Your task to perform on an android device: clear all cookies in the chrome app Image 0: 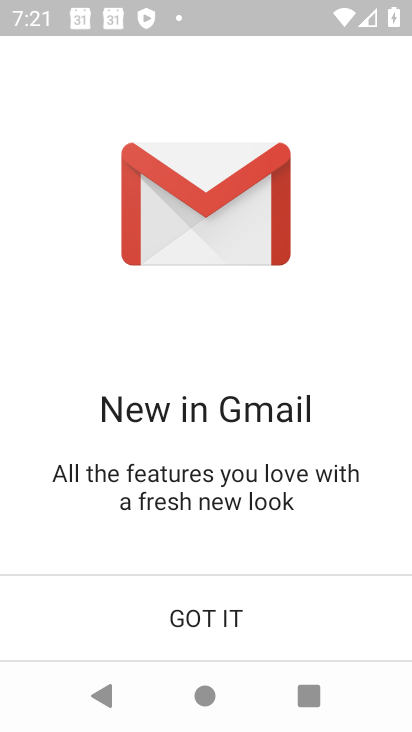
Step 0: press home button
Your task to perform on an android device: clear all cookies in the chrome app Image 1: 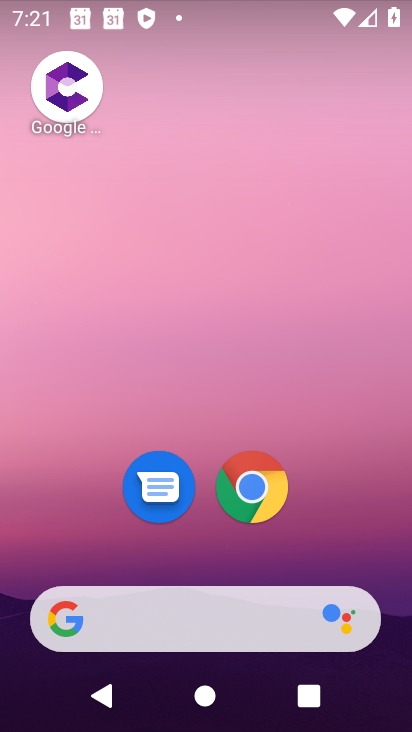
Step 1: drag from (367, 559) to (315, 37)
Your task to perform on an android device: clear all cookies in the chrome app Image 2: 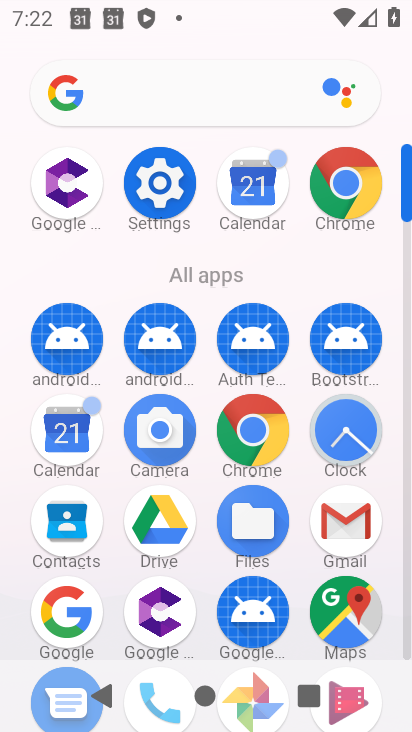
Step 2: click (262, 426)
Your task to perform on an android device: clear all cookies in the chrome app Image 3: 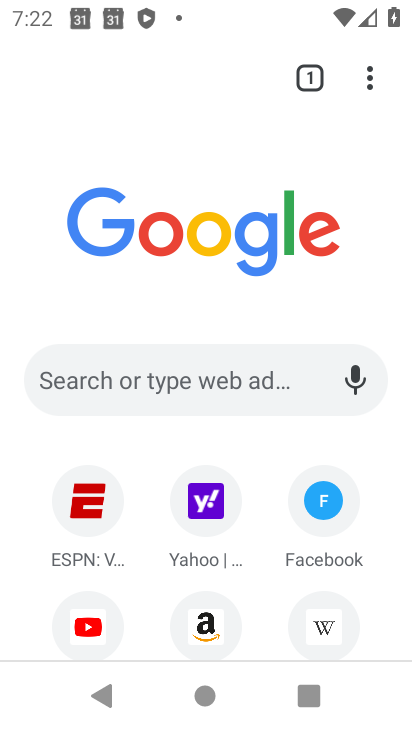
Step 3: click (367, 74)
Your task to perform on an android device: clear all cookies in the chrome app Image 4: 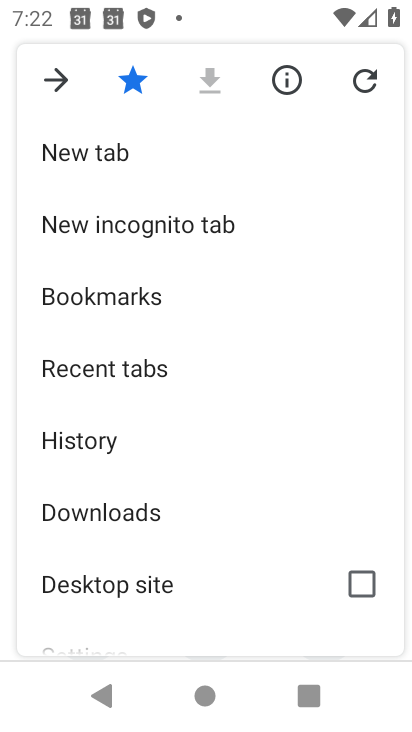
Step 4: click (189, 446)
Your task to perform on an android device: clear all cookies in the chrome app Image 5: 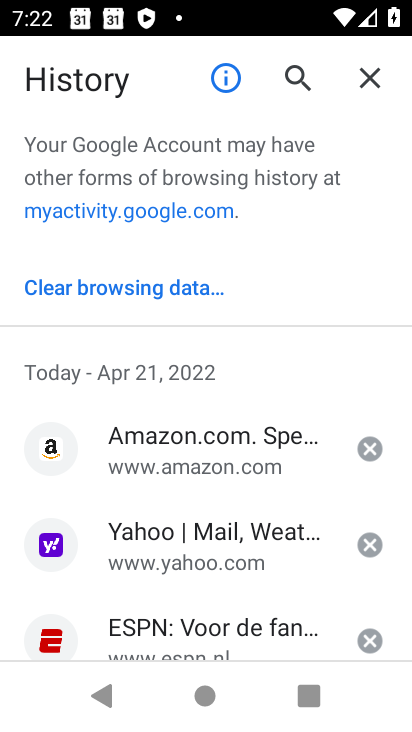
Step 5: click (116, 302)
Your task to perform on an android device: clear all cookies in the chrome app Image 6: 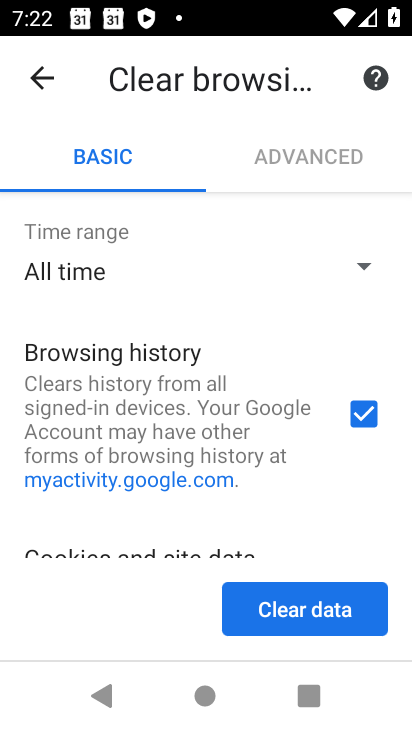
Step 6: click (332, 602)
Your task to perform on an android device: clear all cookies in the chrome app Image 7: 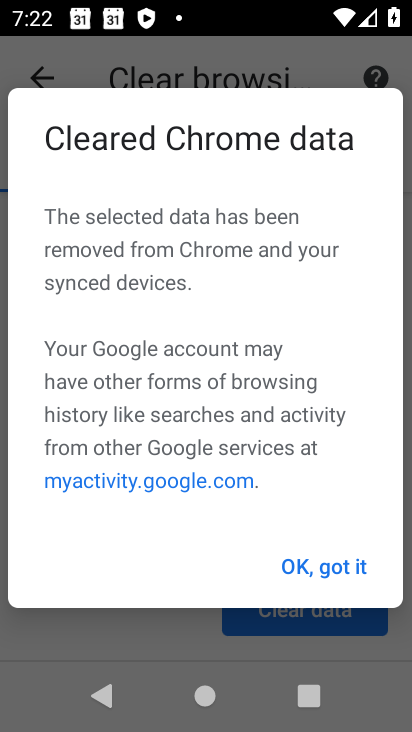
Step 7: click (326, 554)
Your task to perform on an android device: clear all cookies in the chrome app Image 8: 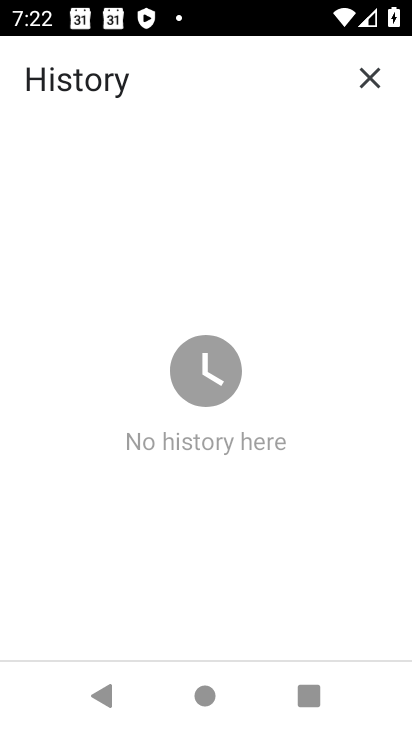
Step 8: task complete